Your task to perform on an android device: open chrome privacy settings Image 0: 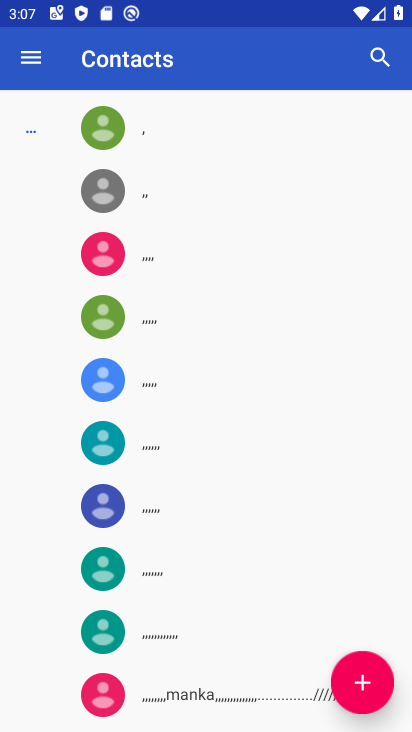
Step 0: press home button
Your task to perform on an android device: open chrome privacy settings Image 1: 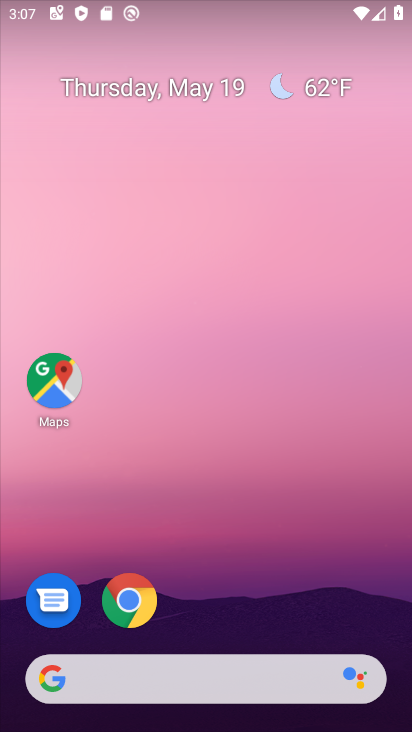
Step 1: click (123, 593)
Your task to perform on an android device: open chrome privacy settings Image 2: 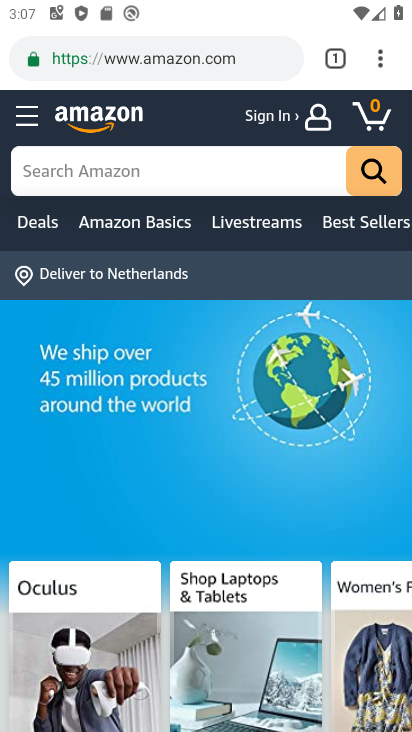
Step 2: click (373, 64)
Your task to perform on an android device: open chrome privacy settings Image 3: 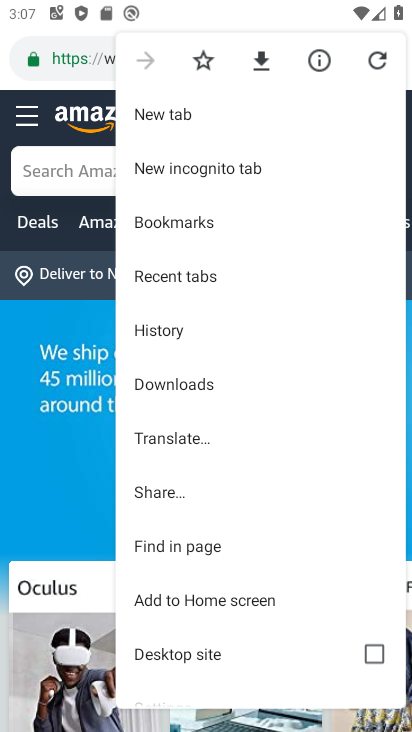
Step 3: drag from (174, 681) to (307, 113)
Your task to perform on an android device: open chrome privacy settings Image 4: 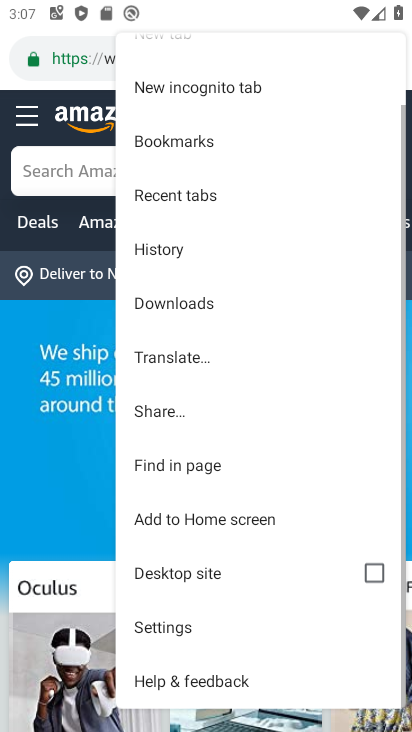
Step 4: click (170, 622)
Your task to perform on an android device: open chrome privacy settings Image 5: 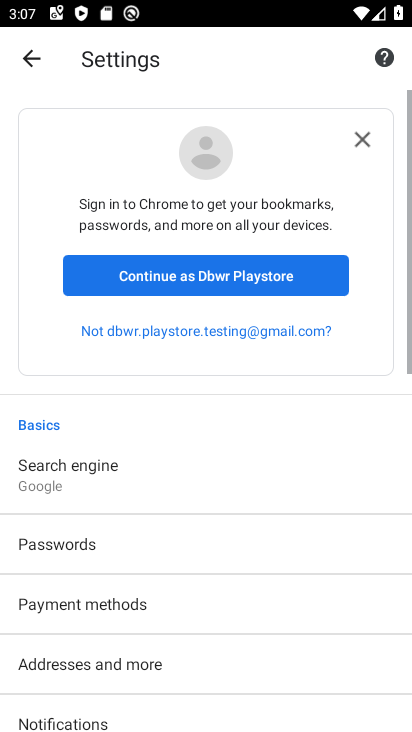
Step 5: drag from (22, 531) to (201, 198)
Your task to perform on an android device: open chrome privacy settings Image 6: 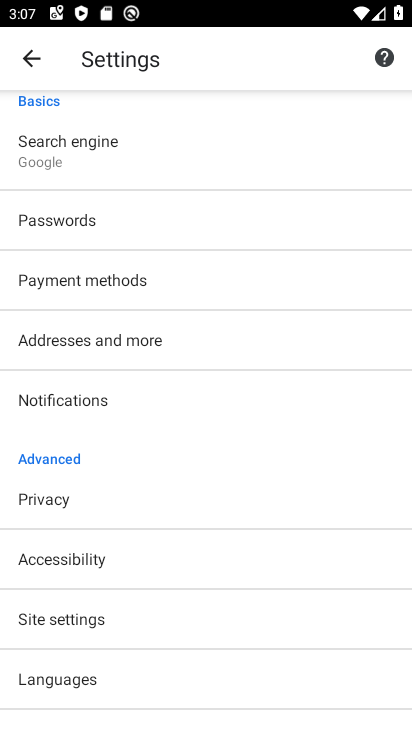
Step 6: click (67, 501)
Your task to perform on an android device: open chrome privacy settings Image 7: 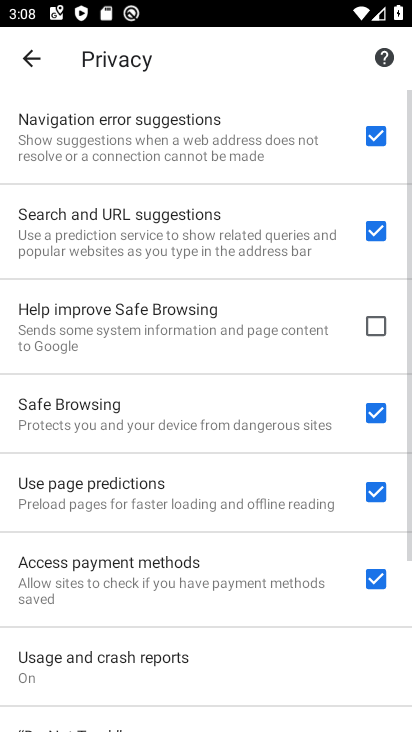
Step 7: task complete